Your task to perform on an android device: Open eBay Image 0: 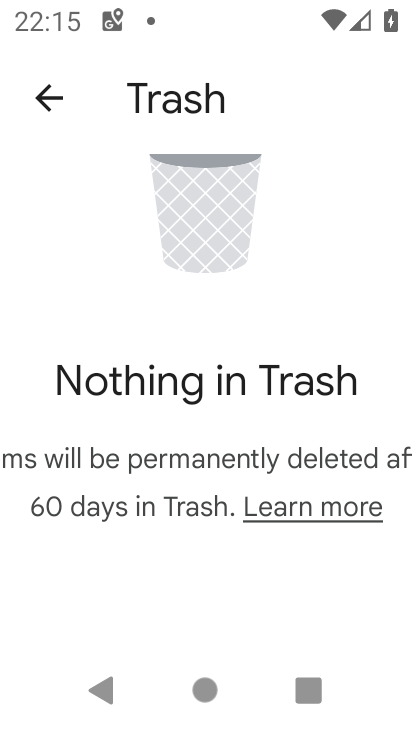
Step 0: drag from (209, 557) to (208, 168)
Your task to perform on an android device: Open eBay Image 1: 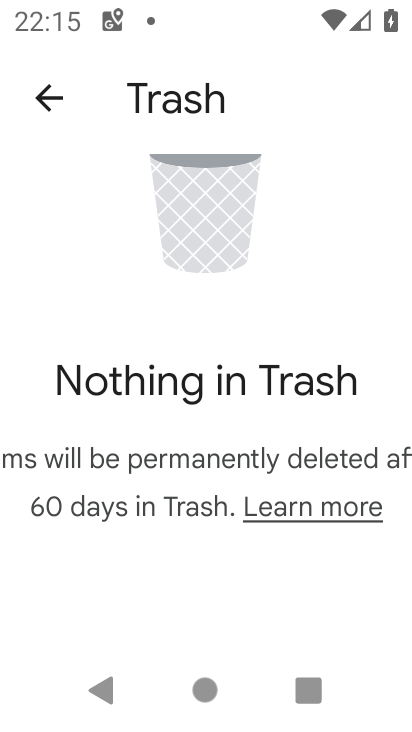
Step 1: press home button
Your task to perform on an android device: Open eBay Image 2: 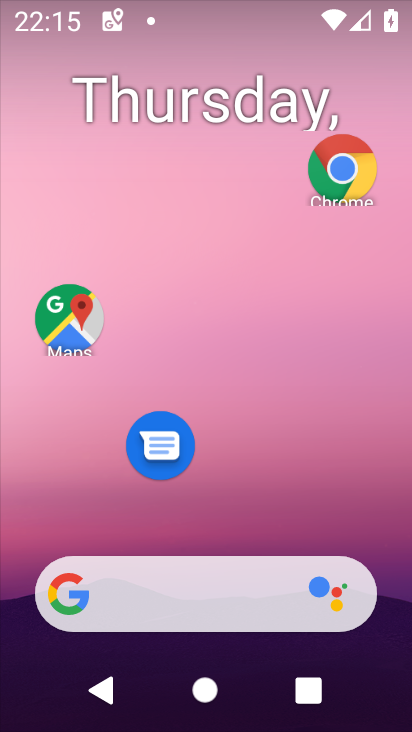
Step 2: drag from (235, 487) to (229, 39)
Your task to perform on an android device: Open eBay Image 3: 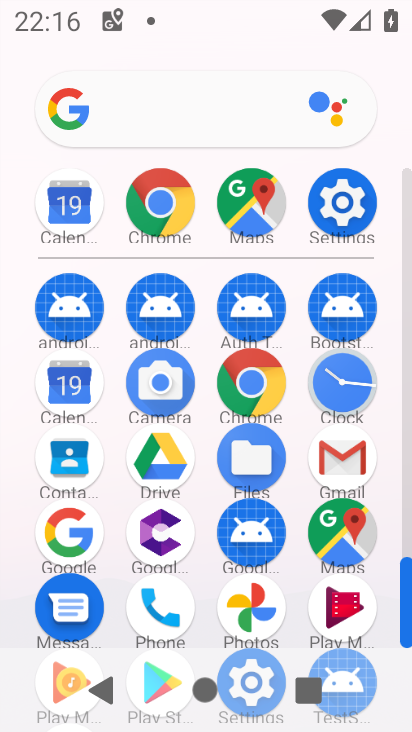
Step 3: click (141, 111)
Your task to perform on an android device: Open eBay Image 4: 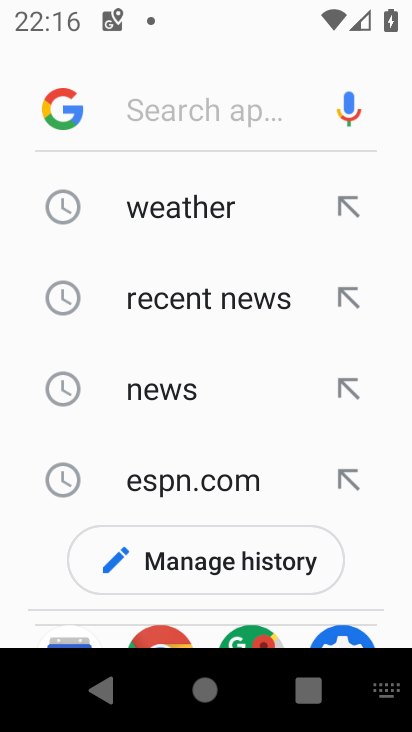
Step 4: type "eBay"
Your task to perform on an android device: Open eBay Image 5: 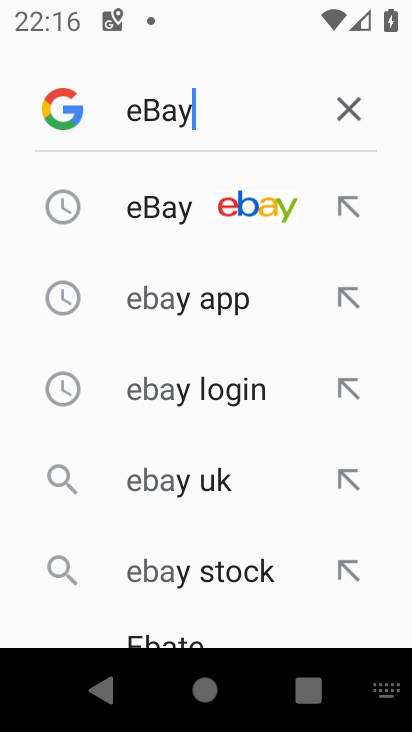
Step 5: type ""
Your task to perform on an android device: Open eBay Image 6: 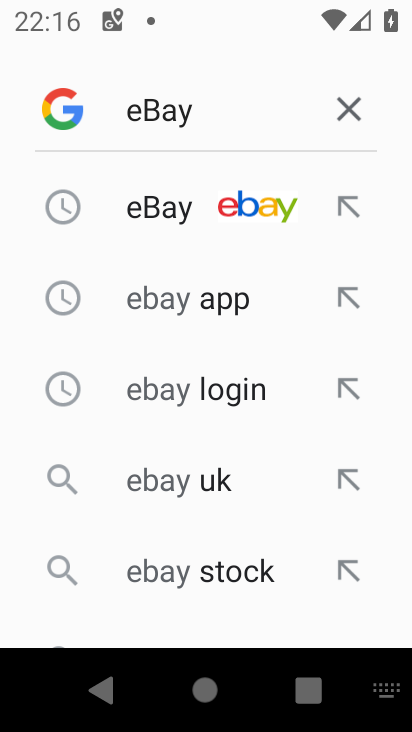
Step 6: click (183, 203)
Your task to perform on an android device: Open eBay Image 7: 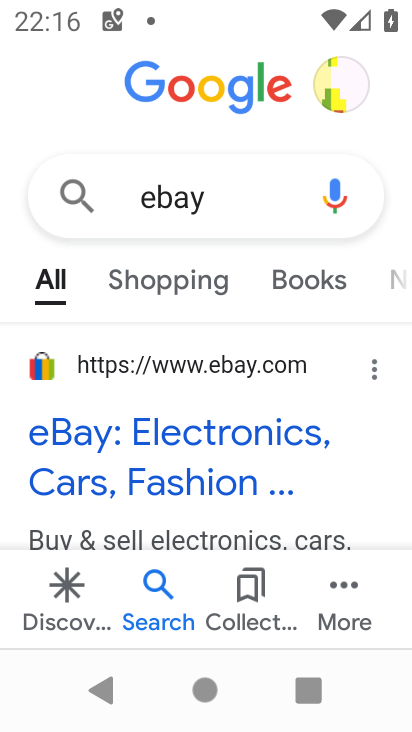
Step 7: task complete